Your task to perform on an android device: Go to Google Image 0: 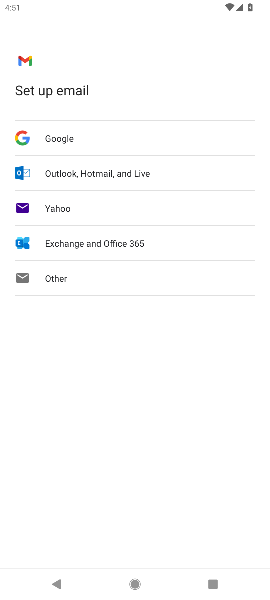
Step 0: press home button
Your task to perform on an android device: Go to Google Image 1: 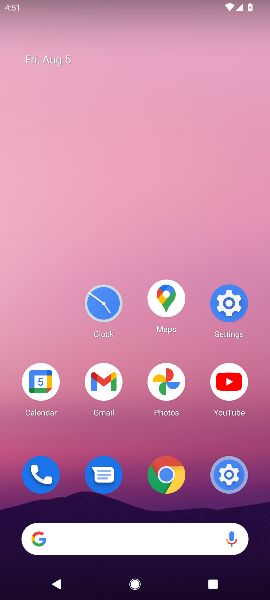
Step 1: drag from (243, 512) to (130, 84)
Your task to perform on an android device: Go to Google Image 2: 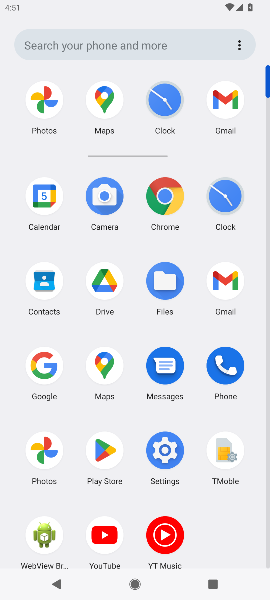
Step 2: click (42, 369)
Your task to perform on an android device: Go to Google Image 3: 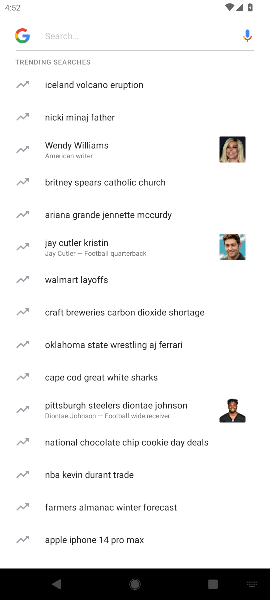
Step 3: task complete